Your task to perform on an android device: uninstall "WhatsApp Messenger" Image 0: 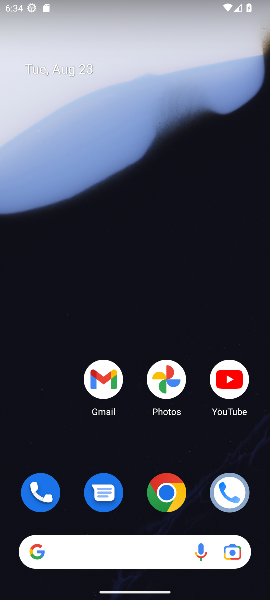
Step 0: drag from (71, 435) to (96, 84)
Your task to perform on an android device: uninstall "WhatsApp Messenger" Image 1: 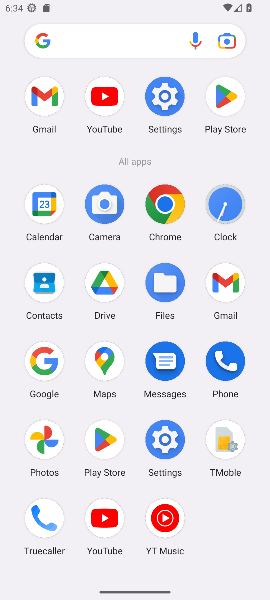
Step 1: click (224, 98)
Your task to perform on an android device: uninstall "WhatsApp Messenger" Image 2: 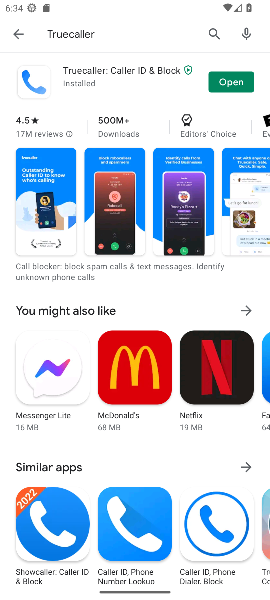
Step 2: press back button
Your task to perform on an android device: uninstall "WhatsApp Messenger" Image 3: 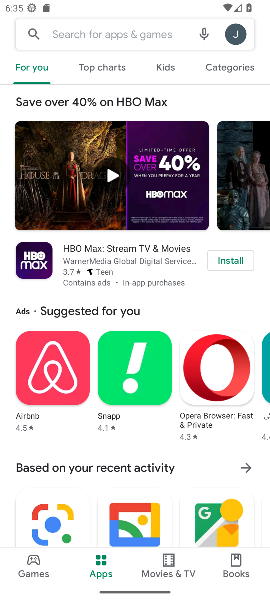
Step 3: click (110, 37)
Your task to perform on an android device: uninstall "WhatsApp Messenger" Image 4: 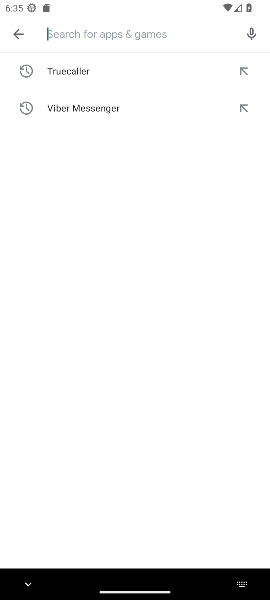
Step 4: type "WhatsApp Messenger"
Your task to perform on an android device: uninstall "WhatsApp Messenger" Image 5: 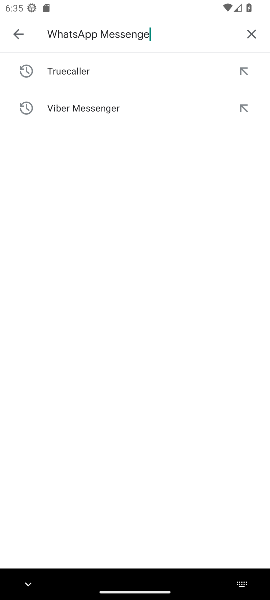
Step 5: press enter
Your task to perform on an android device: uninstall "WhatsApp Messenger" Image 6: 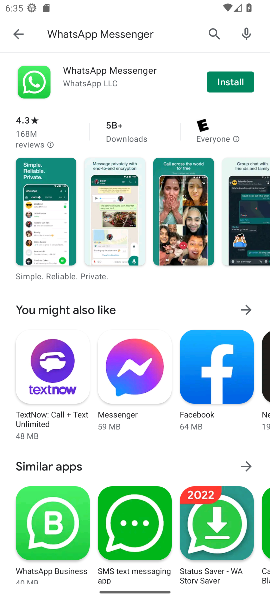
Step 6: task complete